Your task to perform on an android device: toggle notification dots Image 0: 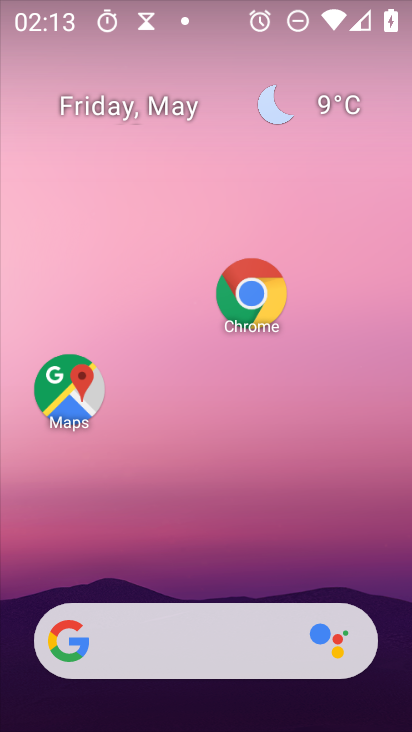
Step 0: press home button
Your task to perform on an android device: toggle notification dots Image 1: 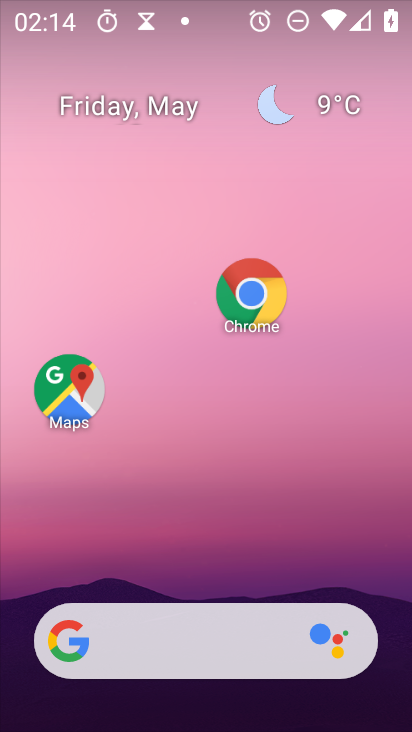
Step 1: drag from (238, 637) to (376, 189)
Your task to perform on an android device: toggle notification dots Image 2: 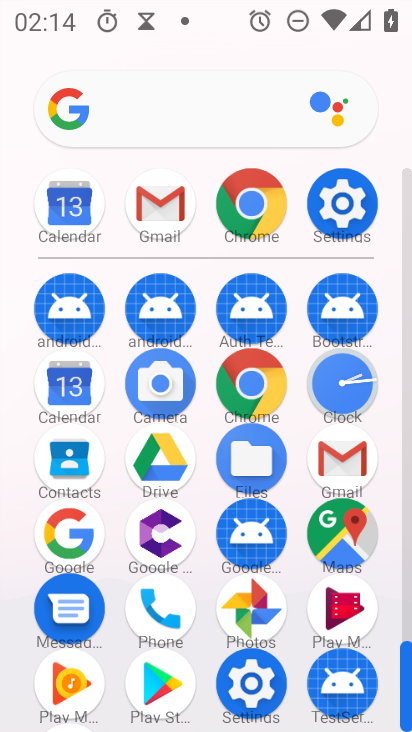
Step 2: click (330, 226)
Your task to perform on an android device: toggle notification dots Image 3: 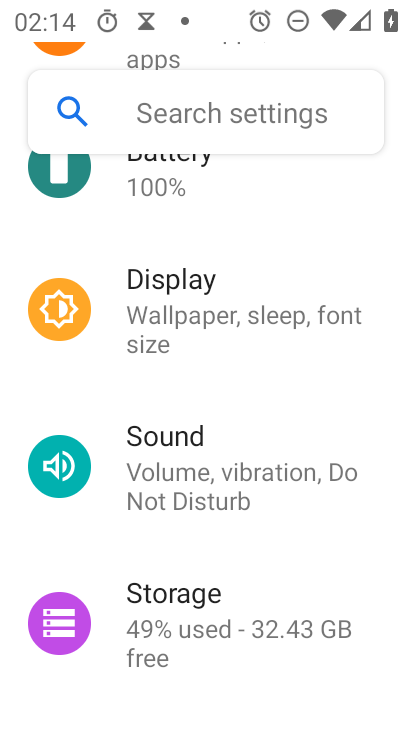
Step 3: drag from (258, 244) to (279, 619)
Your task to perform on an android device: toggle notification dots Image 4: 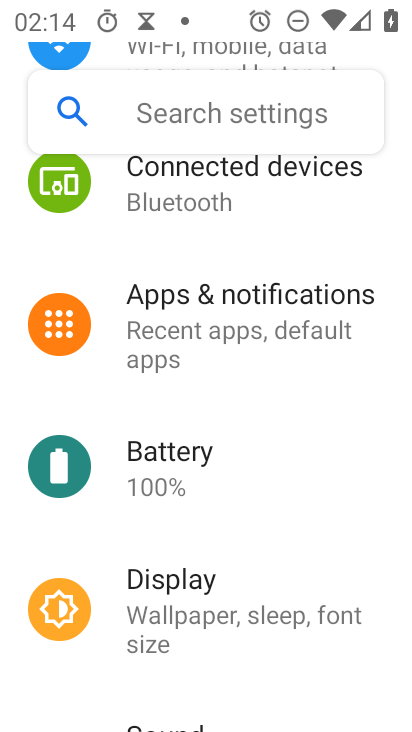
Step 4: click (242, 332)
Your task to perform on an android device: toggle notification dots Image 5: 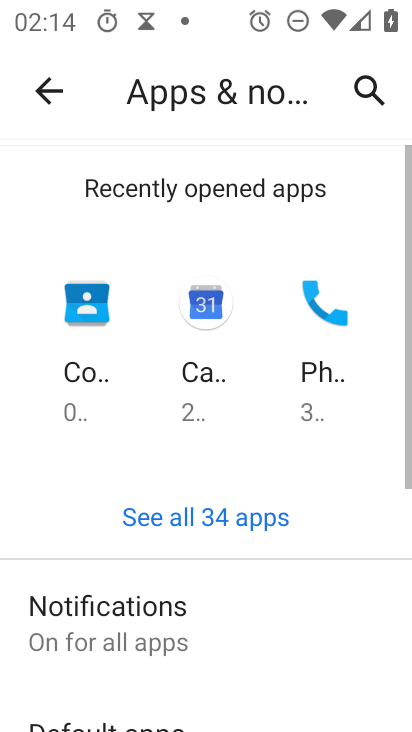
Step 5: click (154, 631)
Your task to perform on an android device: toggle notification dots Image 6: 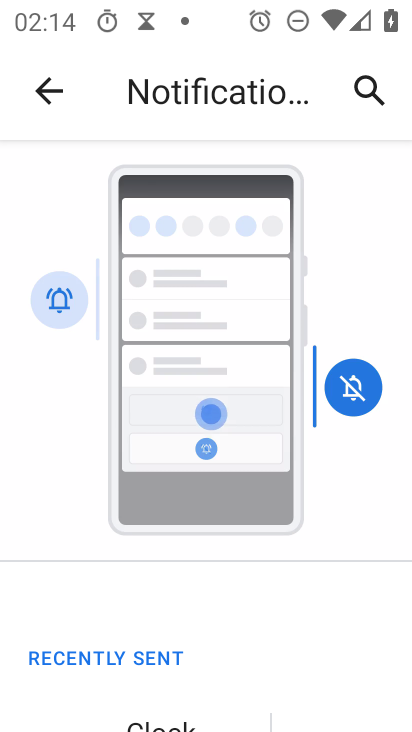
Step 6: drag from (237, 671) to (334, 213)
Your task to perform on an android device: toggle notification dots Image 7: 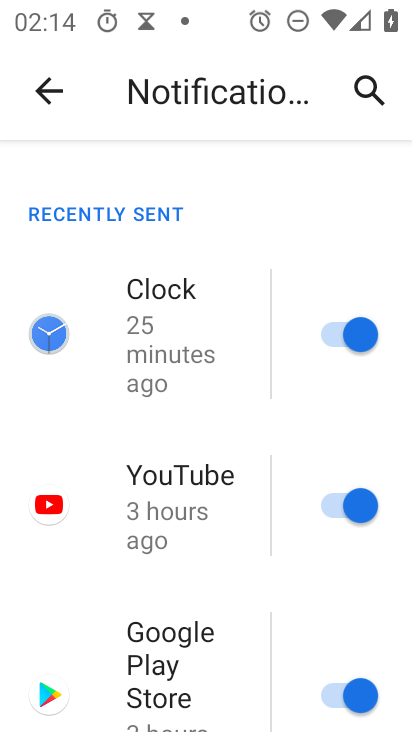
Step 7: drag from (252, 712) to (402, 137)
Your task to perform on an android device: toggle notification dots Image 8: 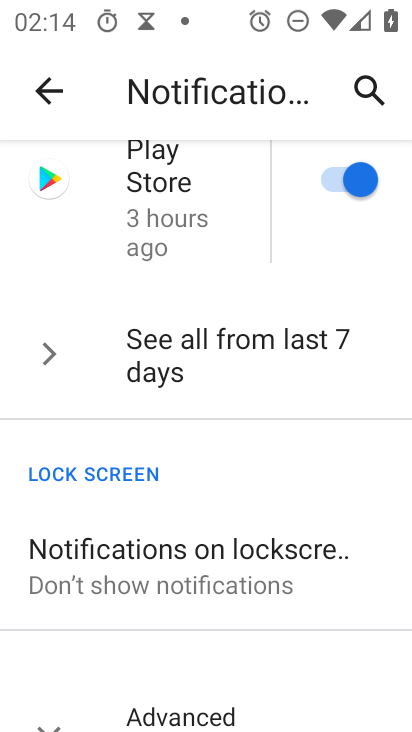
Step 8: drag from (234, 515) to (411, 123)
Your task to perform on an android device: toggle notification dots Image 9: 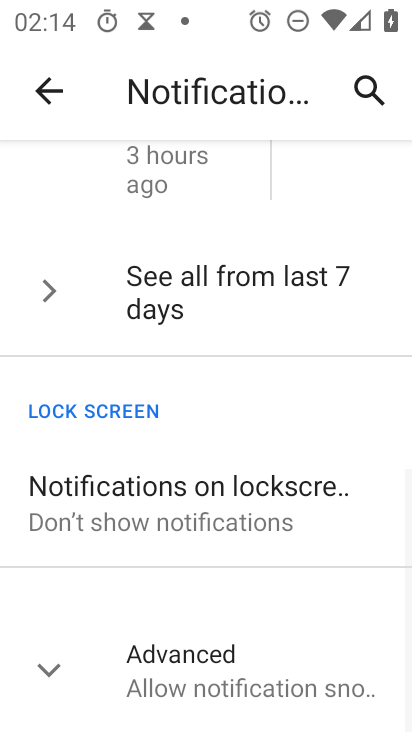
Step 9: click (212, 678)
Your task to perform on an android device: toggle notification dots Image 10: 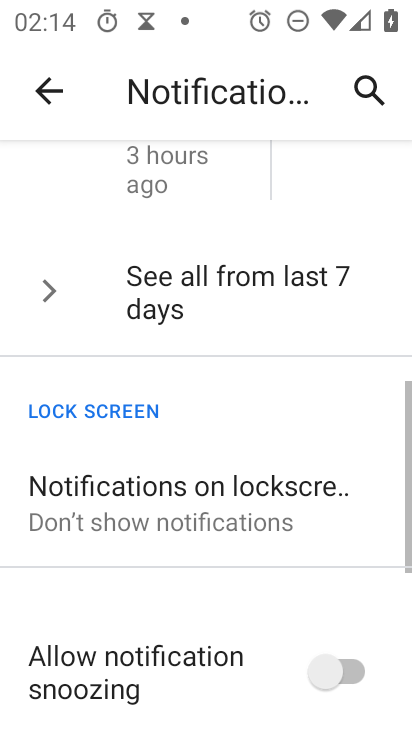
Step 10: drag from (243, 685) to (338, 174)
Your task to perform on an android device: toggle notification dots Image 11: 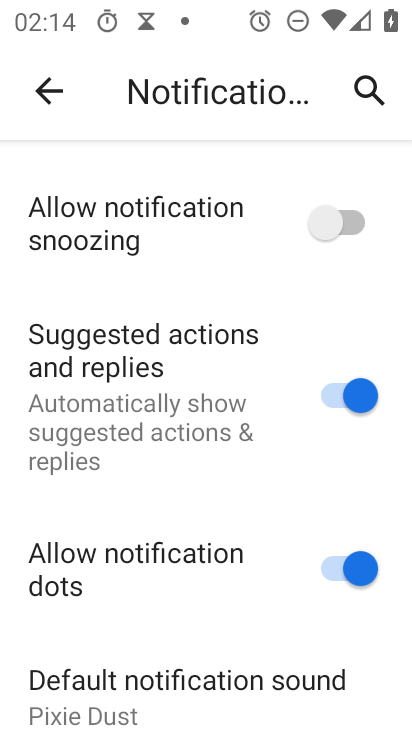
Step 11: click (334, 571)
Your task to perform on an android device: toggle notification dots Image 12: 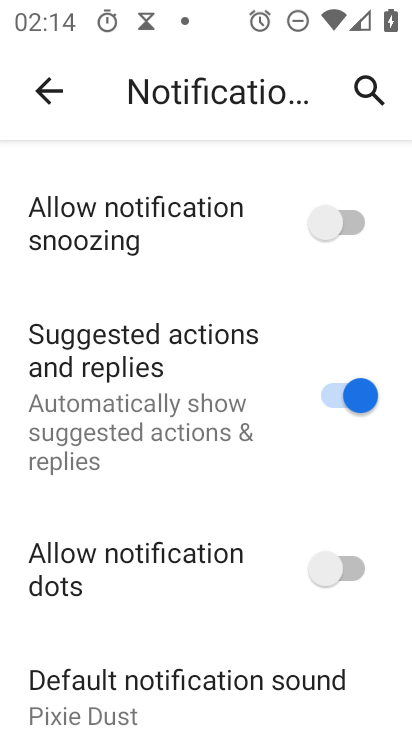
Step 12: task complete